Your task to perform on an android device: Open settings on Google Maps Image 0: 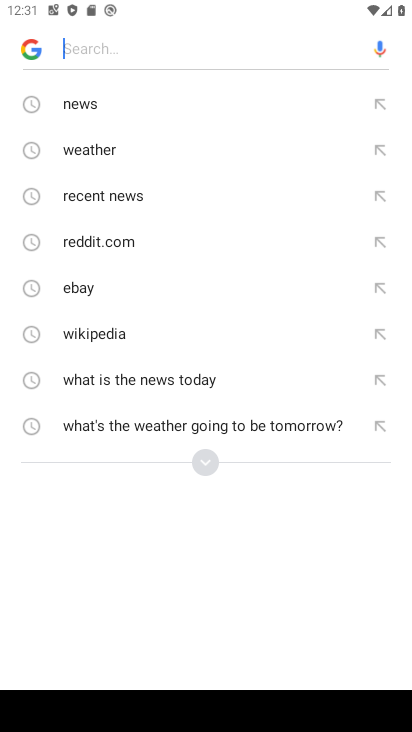
Step 0: press home button
Your task to perform on an android device: Open settings on Google Maps Image 1: 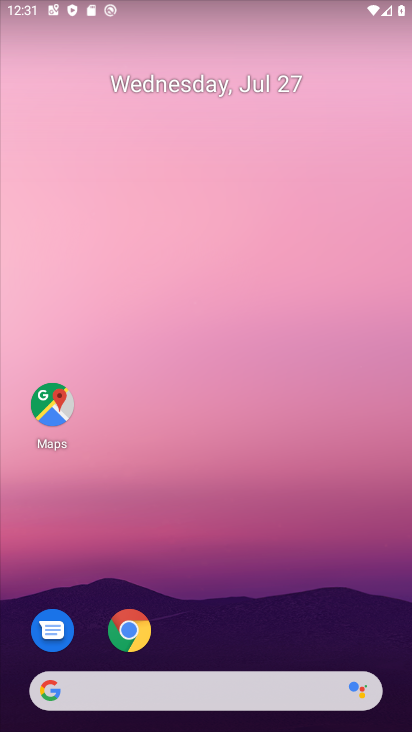
Step 1: drag from (192, 606) to (170, 396)
Your task to perform on an android device: Open settings on Google Maps Image 2: 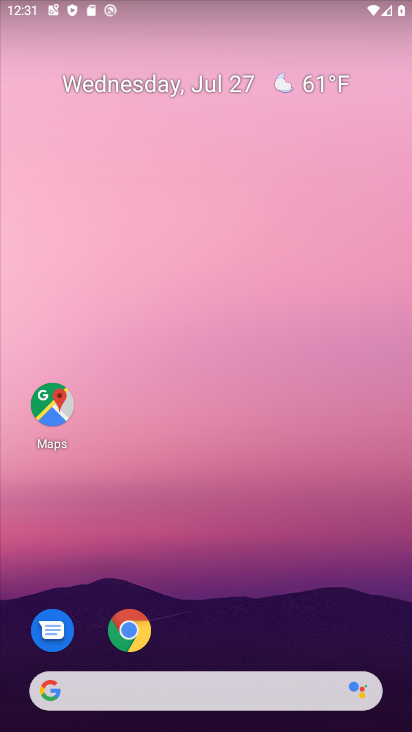
Step 2: click (218, 652)
Your task to perform on an android device: Open settings on Google Maps Image 3: 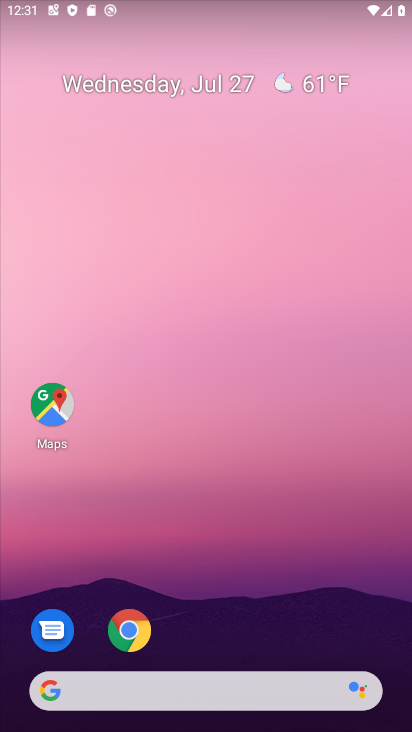
Step 3: drag from (207, 657) to (185, 274)
Your task to perform on an android device: Open settings on Google Maps Image 4: 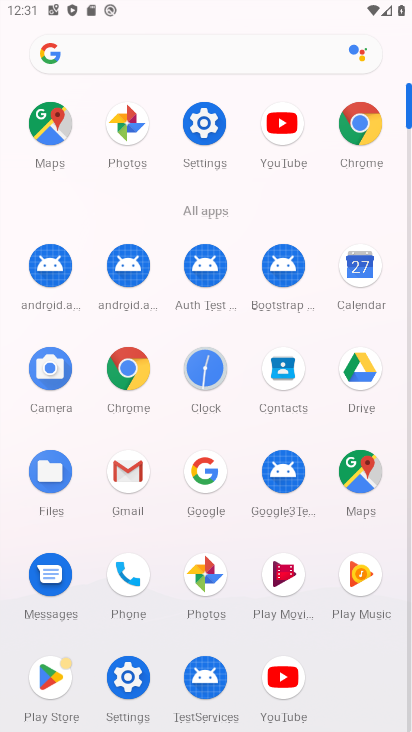
Step 4: click (48, 129)
Your task to perform on an android device: Open settings on Google Maps Image 5: 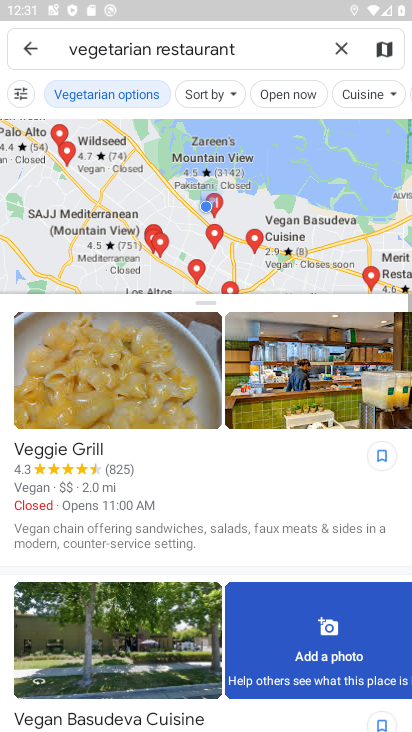
Step 5: click (344, 51)
Your task to perform on an android device: Open settings on Google Maps Image 6: 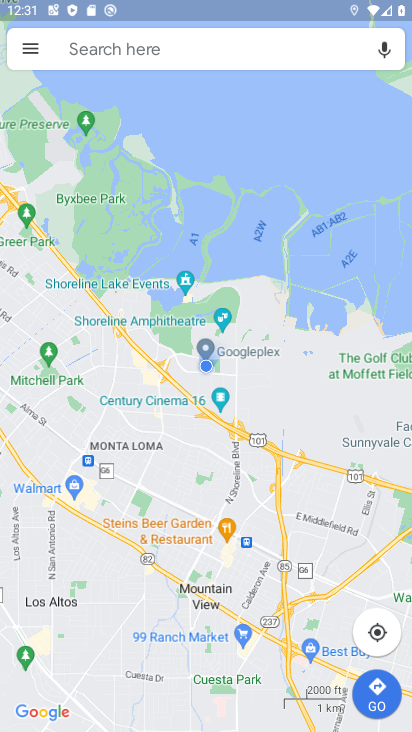
Step 6: click (170, 44)
Your task to perform on an android device: Open settings on Google Maps Image 7: 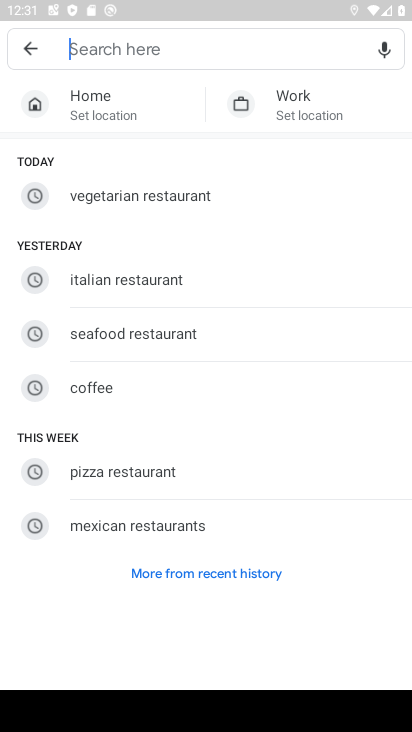
Step 7: click (29, 45)
Your task to perform on an android device: Open settings on Google Maps Image 8: 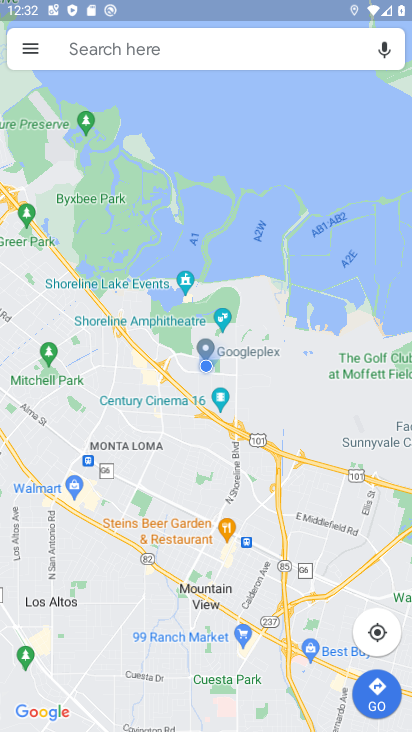
Step 8: click (22, 42)
Your task to perform on an android device: Open settings on Google Maps Image 9: 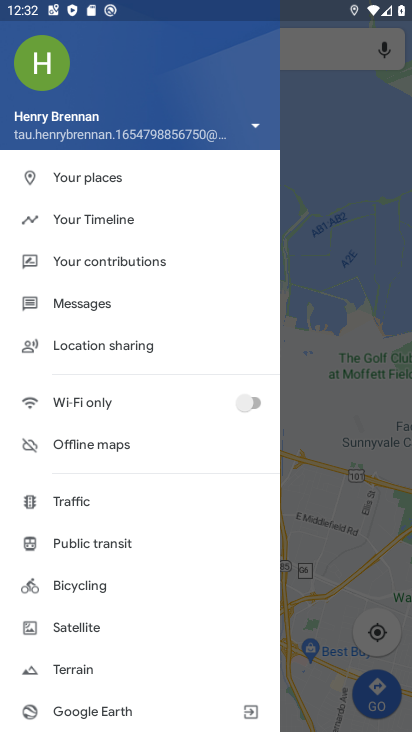
Step 9: drag from (83, 716) to (92, 411)
Your task to perform on an android device: Open settings on Google Maps Image 10: 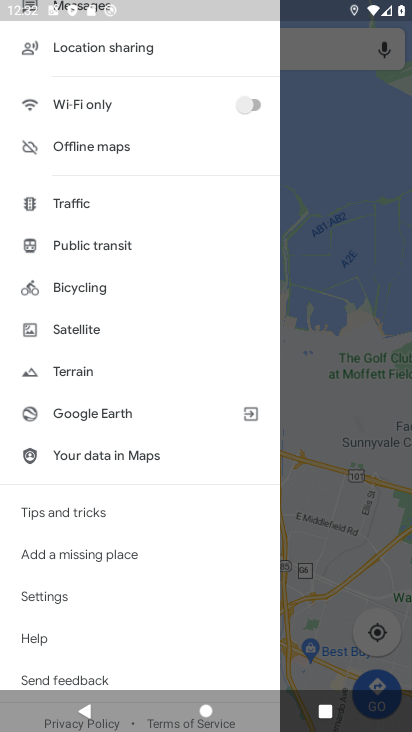
Step 10: click (49, 593)
Your task to perform on an android device: Open settings on Google Maps Image 11: 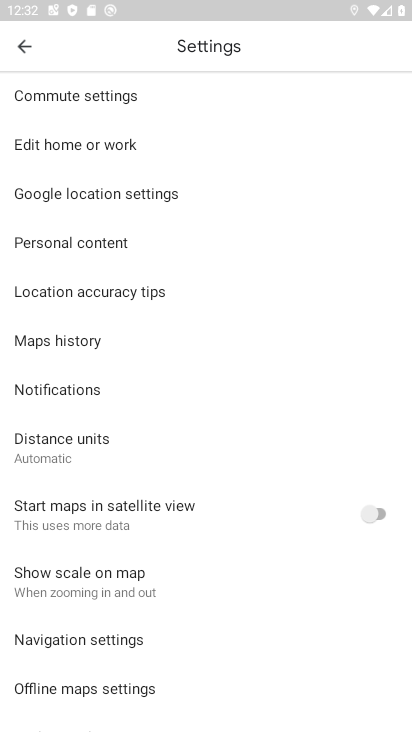
Step 11: click (63, 329)
Your task to perform on an android device: Open settings on Google Maps Image 12: 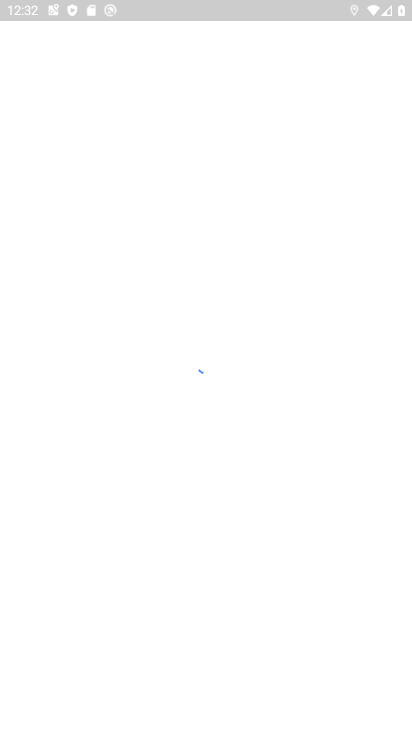
Step 12: task complete